Your task to perform on an android device: move an email to a new category in the gmail app Image 0: 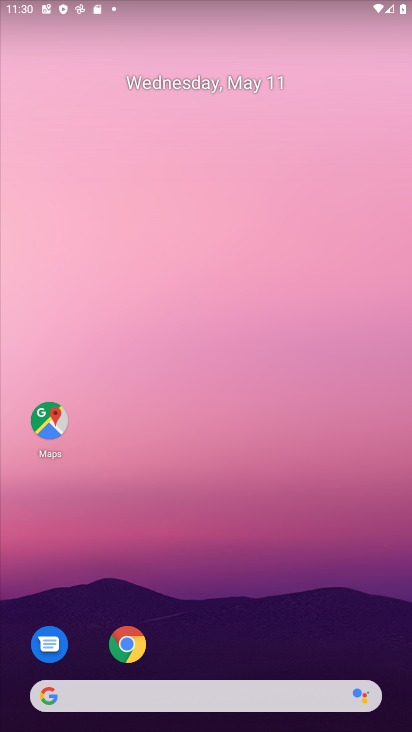
Step 0: drag from (226, 617) to (260, 78)
Your task to perform on an android device: move an email to a new category in the gmail app Image 1: 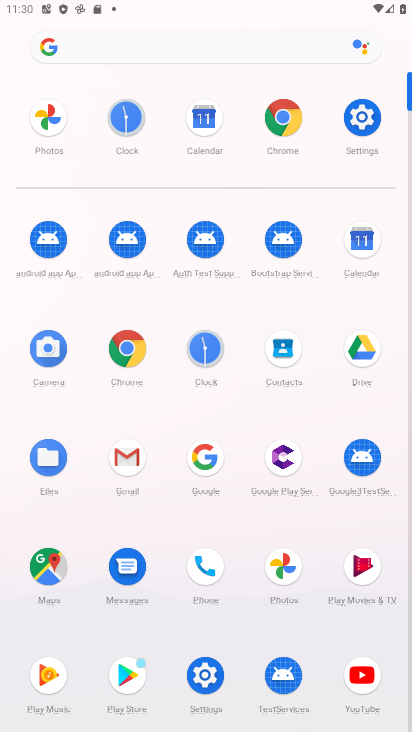
Step 1: click (128, 449)
Your task to perform on an android device: move an email to a new category in the gmail app Image 2: 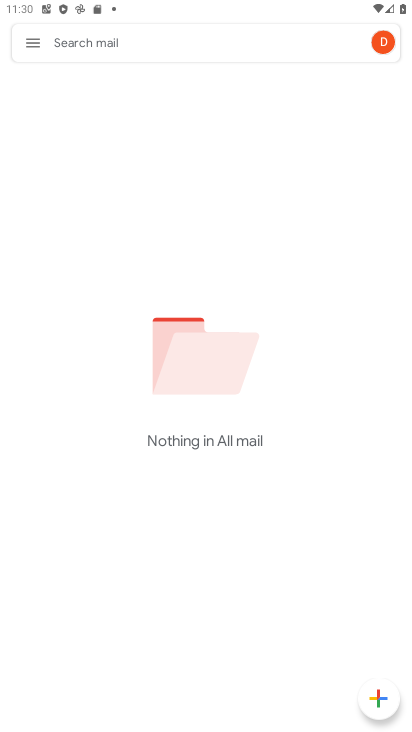
Step 2: press home button
Your task to perform on an android device: move an email to a new category in the gmail app Image 3: 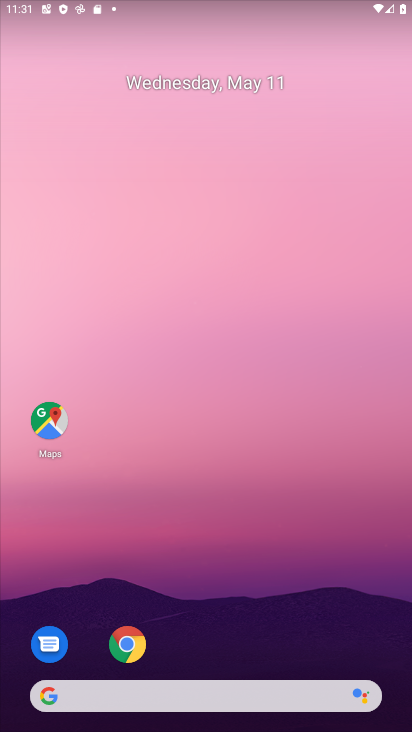
Step 3: drag from (336, 603) to (248, 85)
Your task to perform on an android device: move an email to a new category in the gmail app Image 4: 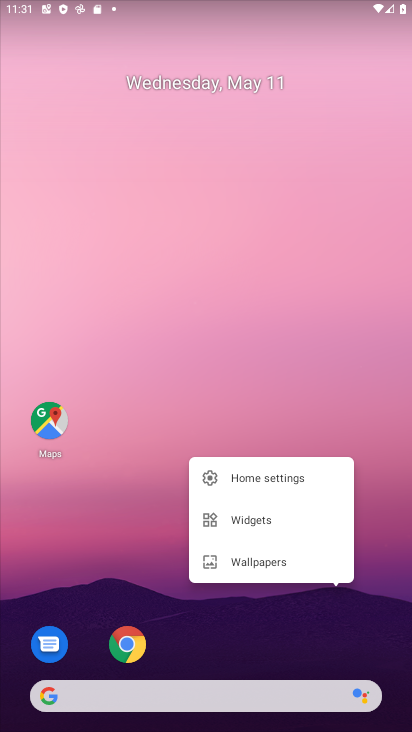
Step 4: click (100, 534)
Your task to perform on an android device: move an email to a new category in the gmail app Image 5: 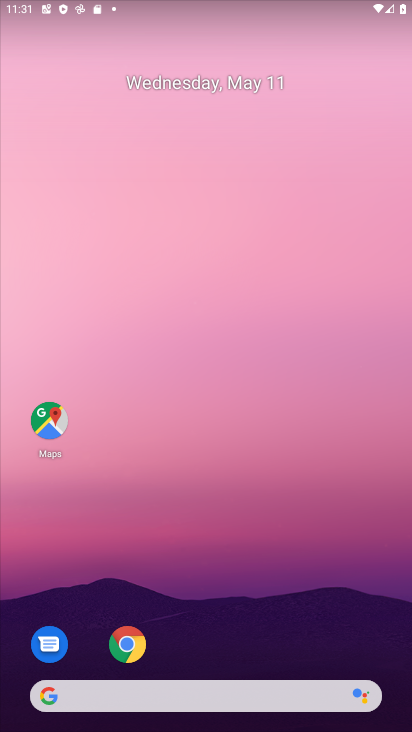
Step 5: drag from (216, 651) to (271, 132)
Your task to perform on an android device: move an email to a new category in the gmail app Image 6: 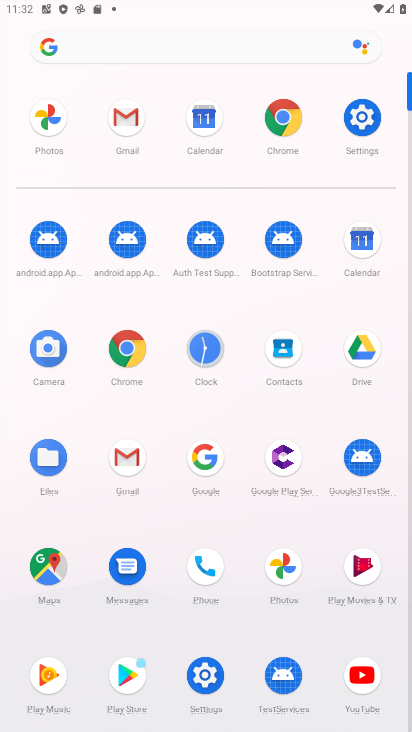
Step 6: click (126, 121)
Your task to perform on an android device: move an email to a new category in the gmail app Image 7: 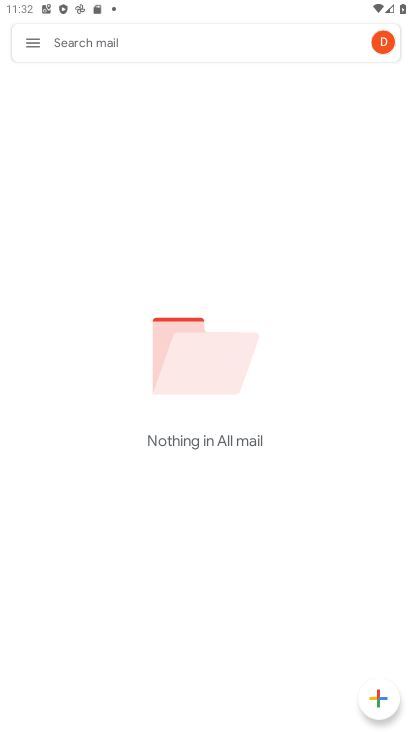
Step 7: click (13, 51)
Your task to perform on an android device: move an email to a new category in the gmail app Image 8: 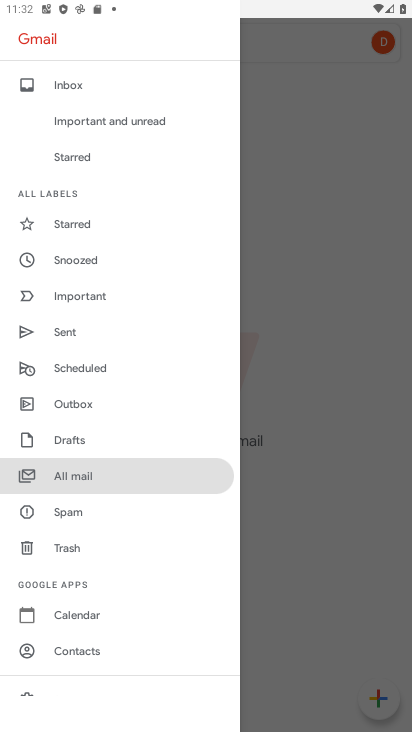
Step 8: task complete